Your task to perform on an android device: Search for seafood restaurants on Google Maps Image 0: 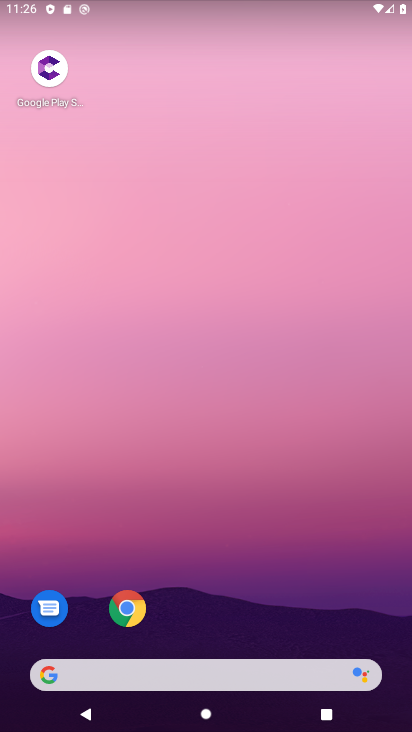
Step 0: drag from (151, 646) to (159, 290)
Your task to perform on an android device: Search for seafood restaurants on Google Maps Image 1: 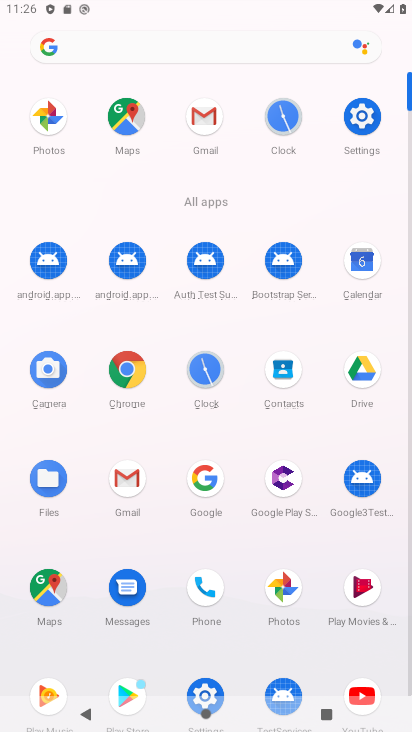
Step 1: click (45, 602)
Your task to perform on an android device: Search for seafood restaurants on Google Maps Image 2: 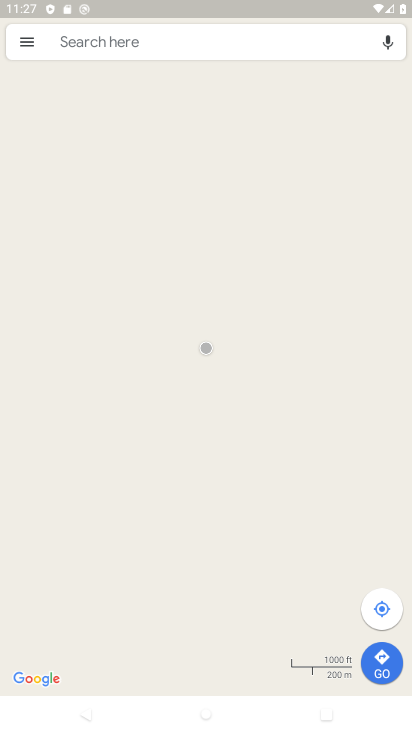
Step 2: click (99, 40)
Your task to perform on an android device: Search for seafood restaurants on Google Maps Image 3: 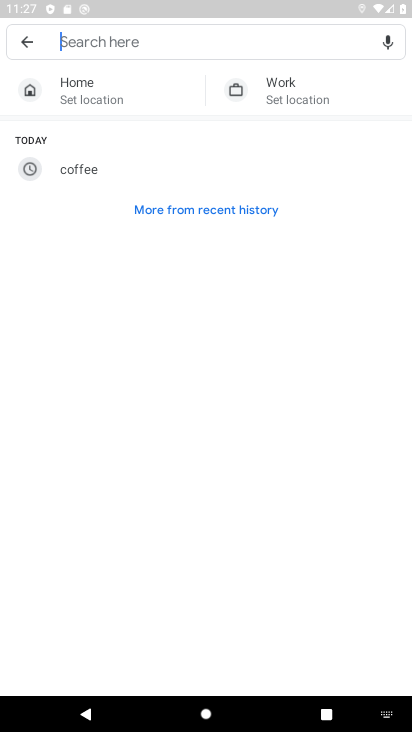
Step 3: type "seafood restaurants"
Your task to perform on an android device: Search for seafood restaurants on Google Maps Image 4: 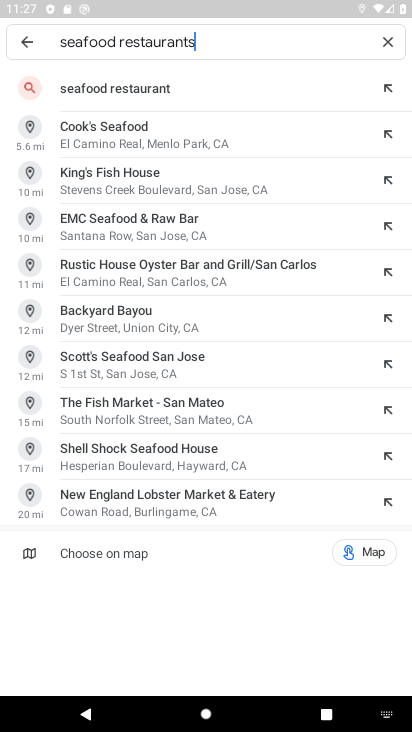
Step 4: click (120, 88)
Your task to perform on an android device: Search for seafood restaurants on Google Maps Image 5: 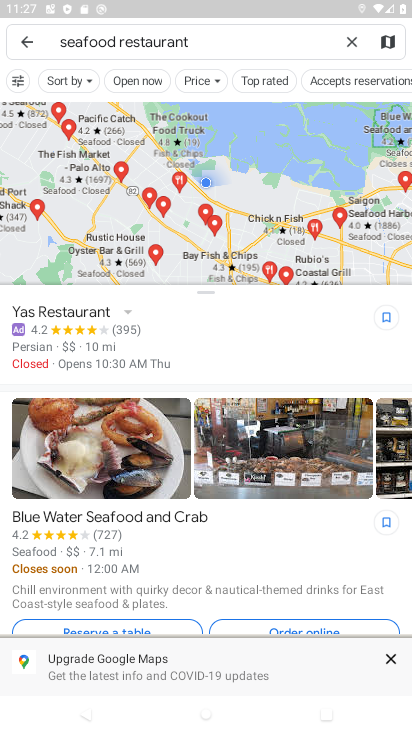
Step 5: task complete